Your task to perform on an android device: turn on improve location accuracy Image 0: 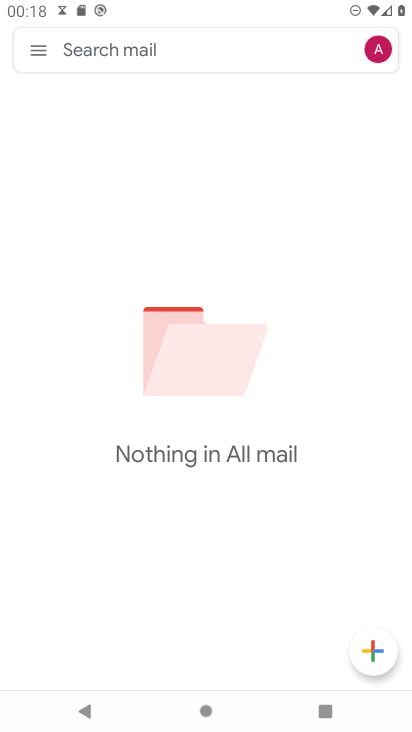
Step 0: press home button
Your task to perform on an android device: turn on improve location accuracy Image 1: 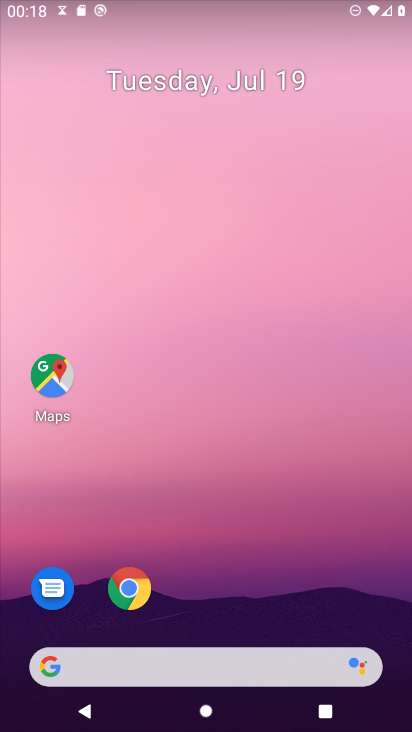
Step 1: drag from (262, 579) to (315, 90)
Your task to perform on an android device: turn on improve location accuracy Image 2: 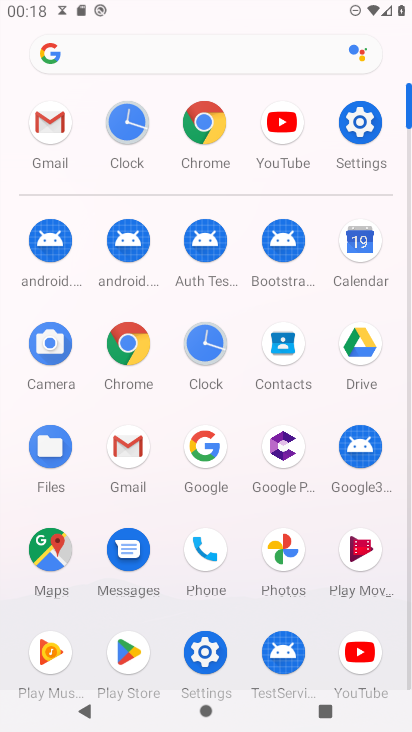
Step 2: click (365, 121)
Your task to perform on an android device: turn on improve location accuracy Image 3: 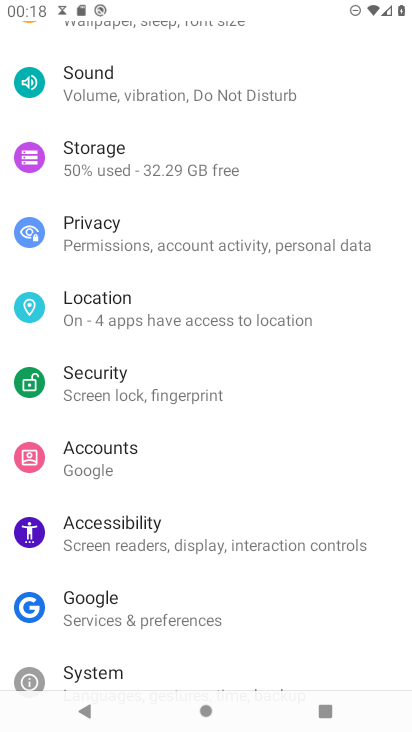
Step 3: click (198, 312)
Your task to perform on an android device: turn on improve location accuracy Image 4: 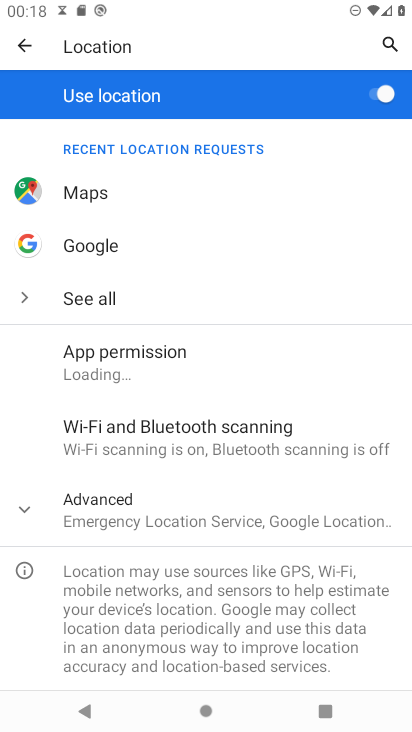
Step 4: click (28, 508)
Your task to perform on an android device: turn on improve location accuracy Image 5: 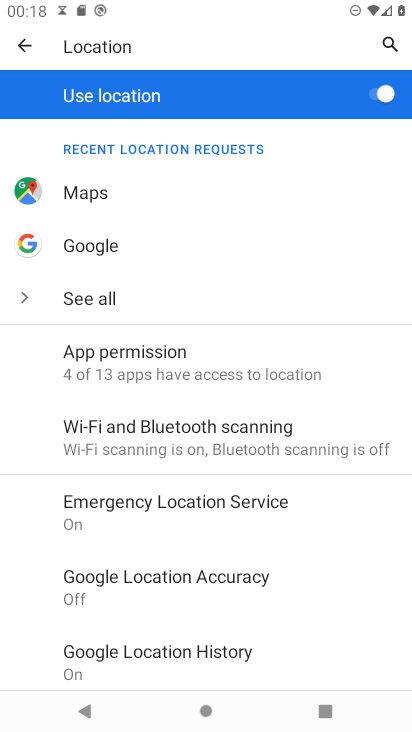
Step 5: click (214, 581)
Your task to perform on an android device: turn on improve location accuracy Image 6: 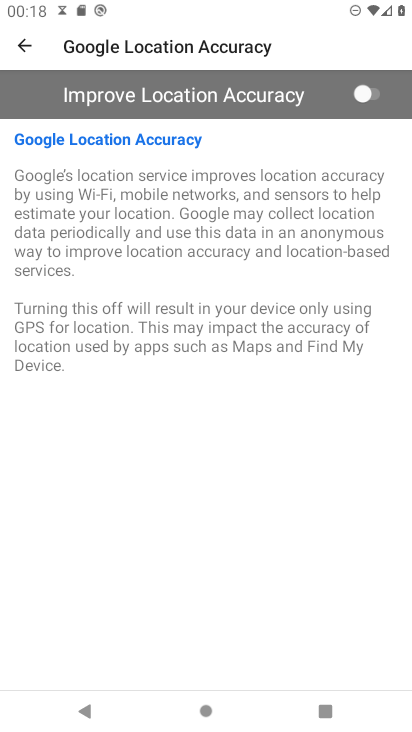
Step 6: click (369, 90)
Your task to perform on an android device: turn on improve location accuracy Image 7: 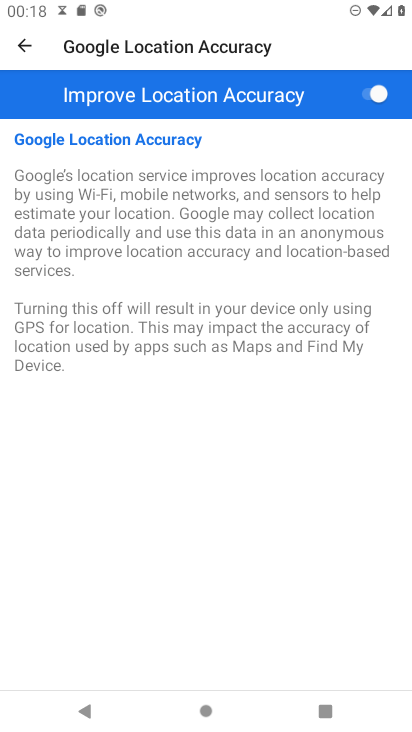
Step 7: task complete